Your task to perform on an android device: Do I have any events tomorrow? Image 0: 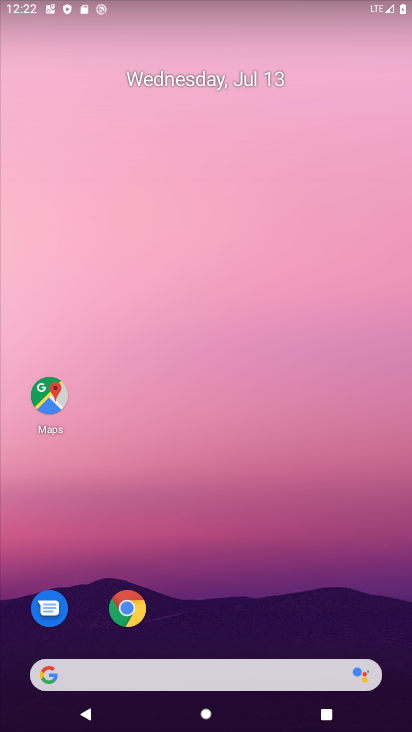
Step 0: drag from (238, 605) to (307, 0)
Your task to perform on an android device: Do I have any events tomorrow? Image 1: 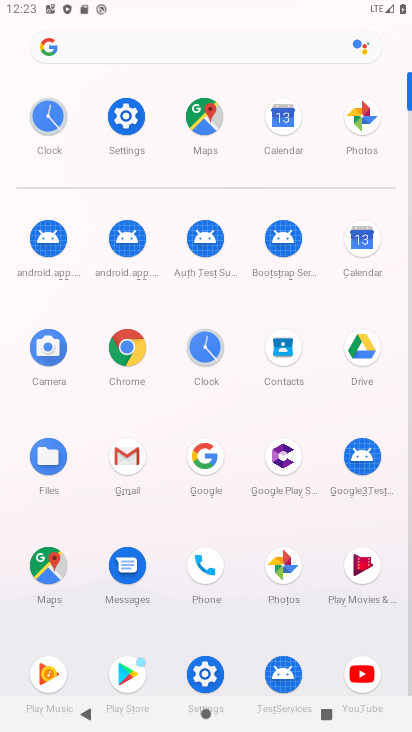
Step 1: click (367, 238)
Your task to perform on an android device: Do I have any events tomorrow? Image 2: 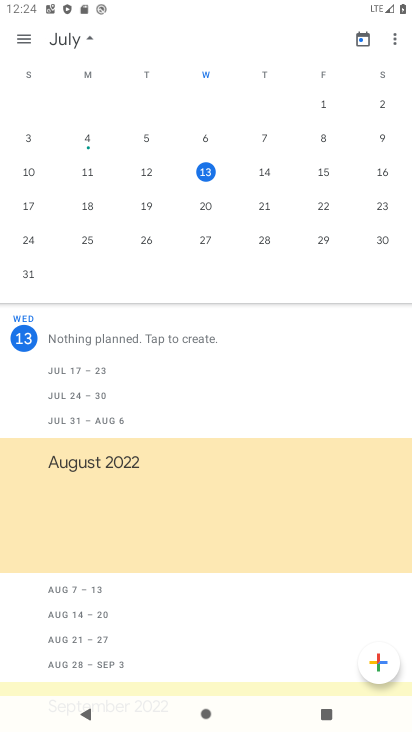
Step 2: click (202, 168)
Your task to perform on an android device: Do I have any events tomorrow? Image 3: 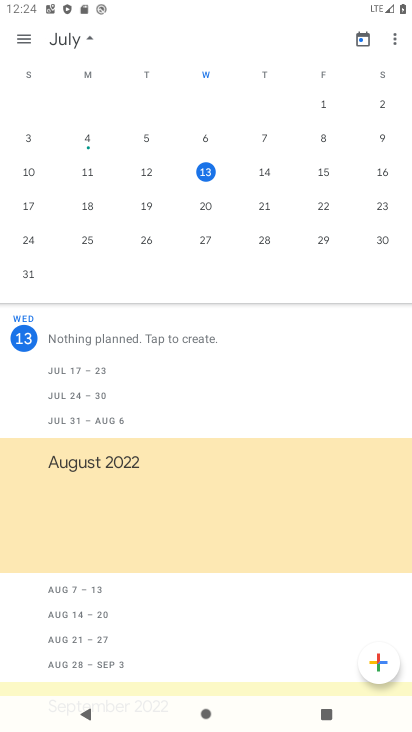
Step 3: task complete